Your task to perform on an android device: see tabs open on other devices in the chrome app Image 0: 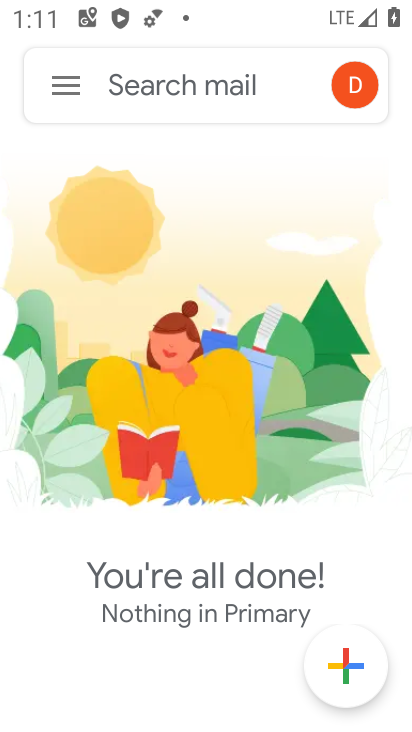
Step 0: press home button
Your task to perform on an android device: see tabs open on other devices in the chrome app Image 1: 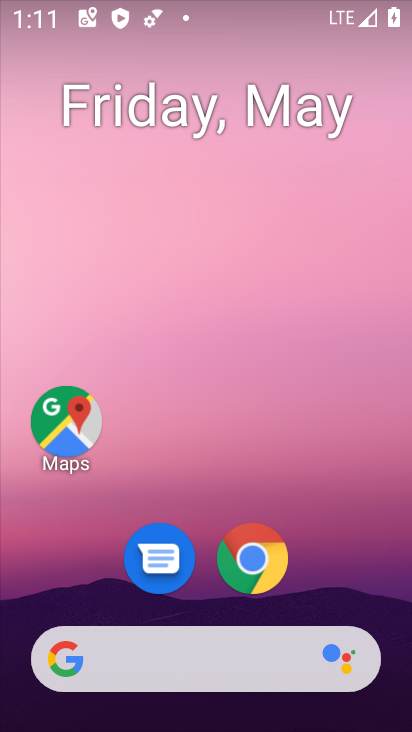
Step 1: click (254, 555)
Your task to perform on an android device: see tabs open on other devices in the chrome app Image 2: 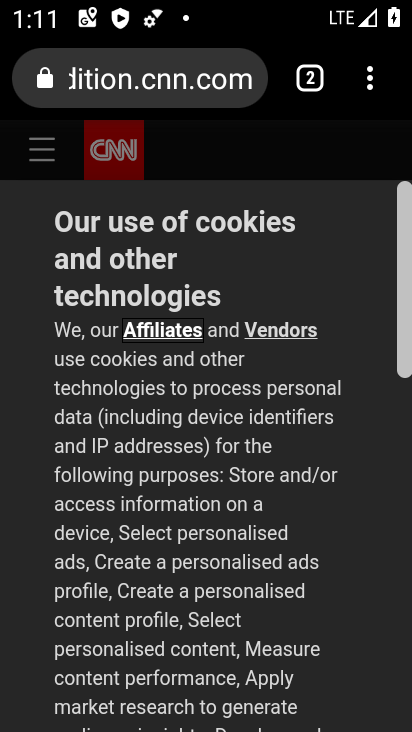
Step 2: click (378, 78)
Your task to perform on an android device: see tabs open on other devices in the chrome app Image 3: 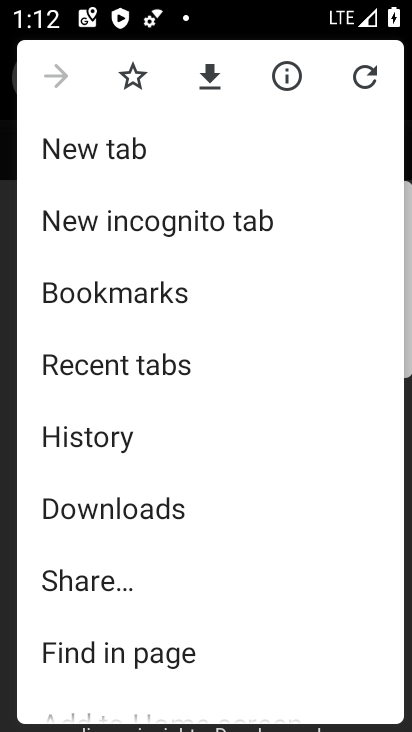
Step 3: click (160, 375)
Your task to perform on an android device: see tabs open on other devices in the chrome app Image 4: 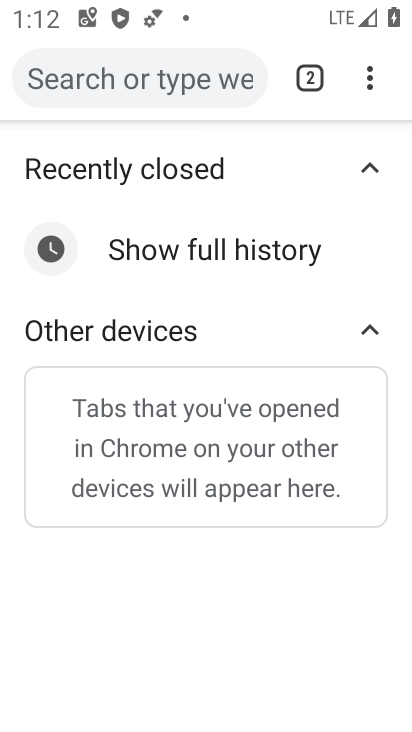
Step 4: task complete